Your task to perform on an android device: open a new tab in the chrome app Image 0: 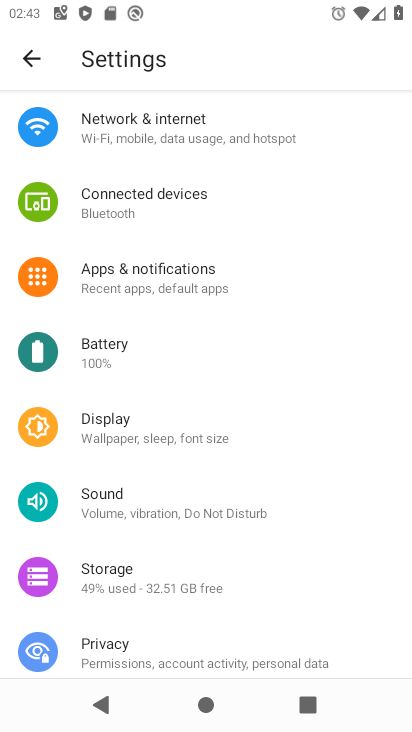
Step 0: press home button
Your task to perform on an android device: open a new tab in the chrome app Image 1: 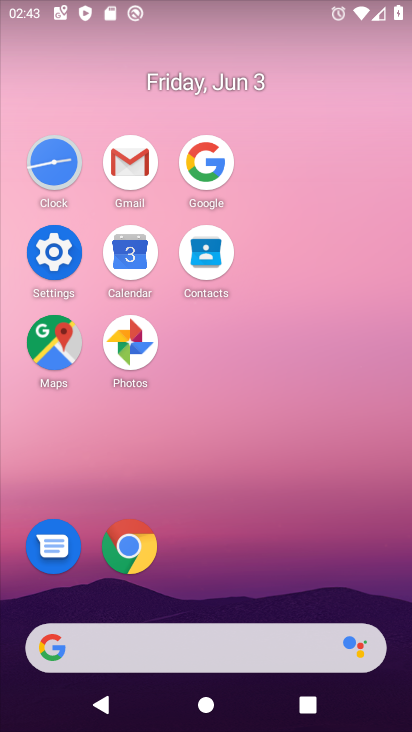
Step 1: click (115, 579)
Your task to perform on an android device: open a new tab in the chrome app Image 2: 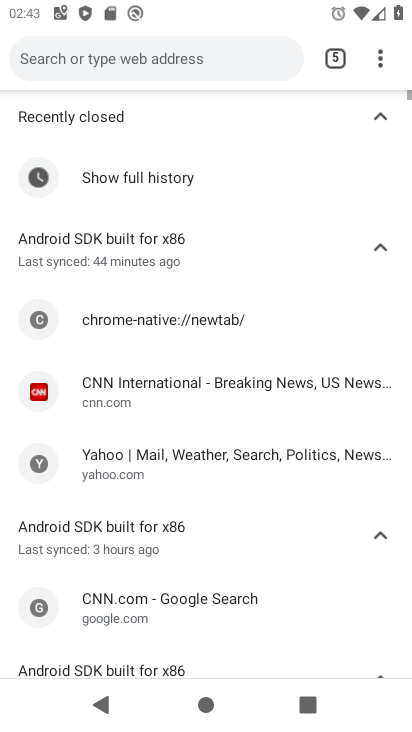
Step 2: click (341, 61)
Your task to perform on an android device: open a new tab in the chrome app Image 3: 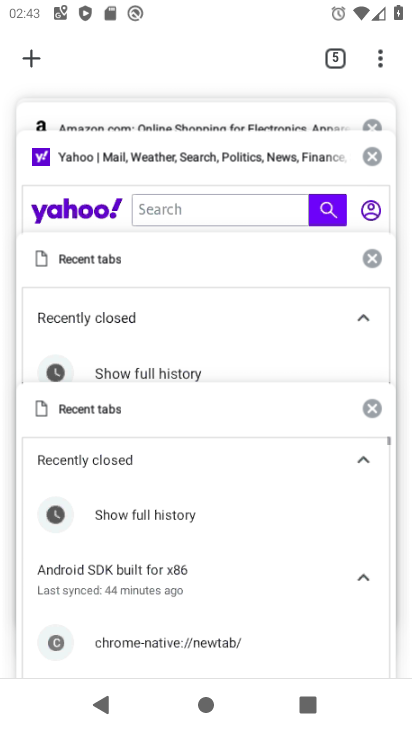
Step 3: click (32, 60)
Your task to perform on an android device: open a new tab in the chrome app Image 4: 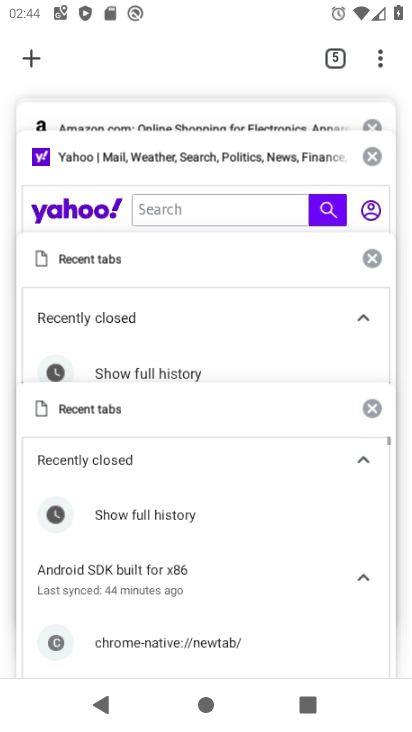
Step 4: click (33, 61)
Your task to perform on an android device: open a new tab in the chrome app Image 5: 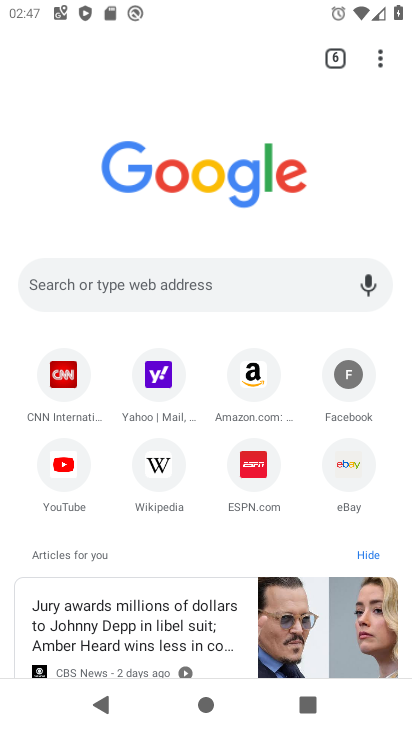
Step 5: task complete